Your task to perform on an android device: Go to Maps Image 0: 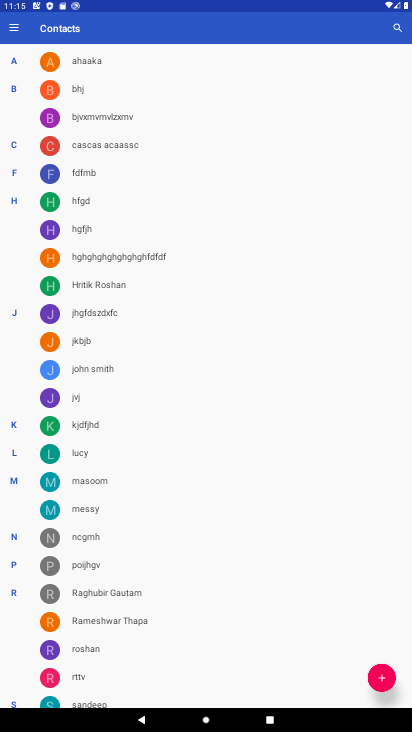
Step 0: press home button
Your task to perform on an android device: Go to Maps Image 1: 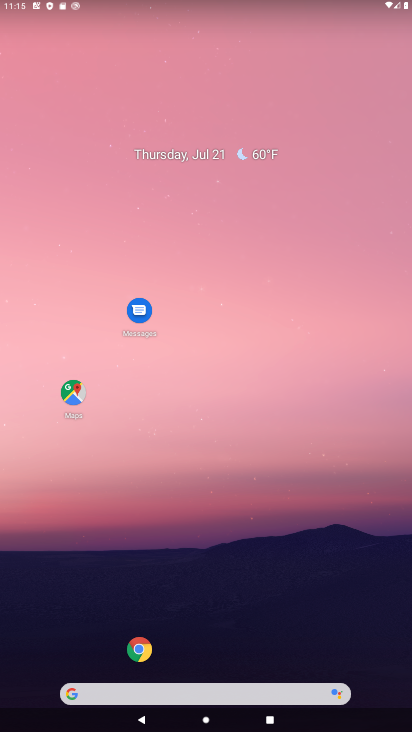
Step 1: click (75, 405)
Your task to perform on an android device: Go to Maps Image 2: 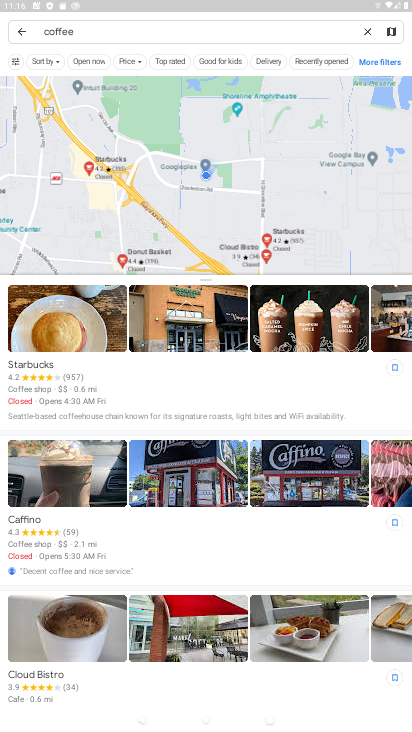
Step 2: click (27, 35)
Your task to perform on an android device: Go to Maps Image 3: 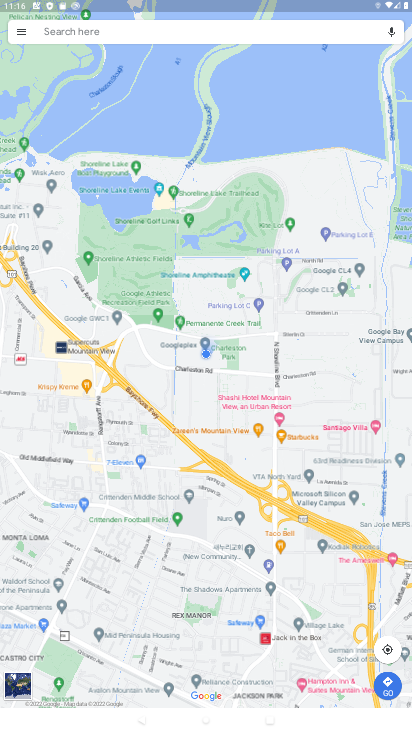
Step 3: task complete